Your task to perform on an android device: remove spam from my inbox in the gmail app Image 0: 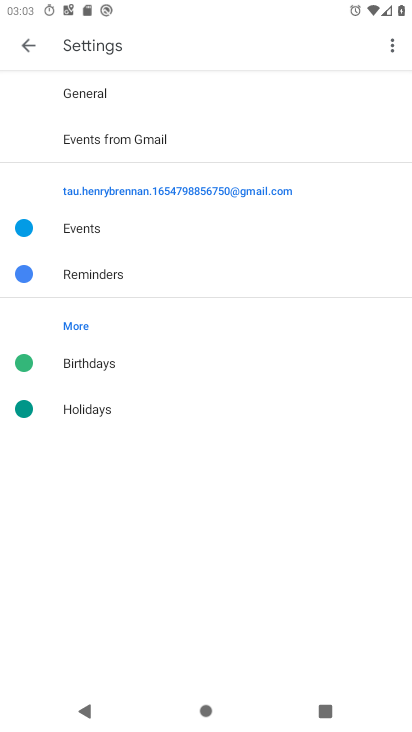
Step 0: drag from (179, 608) to (298, 99)
Your task to perform on an android device: remove spam from my inbox in the gmail app Image 1: 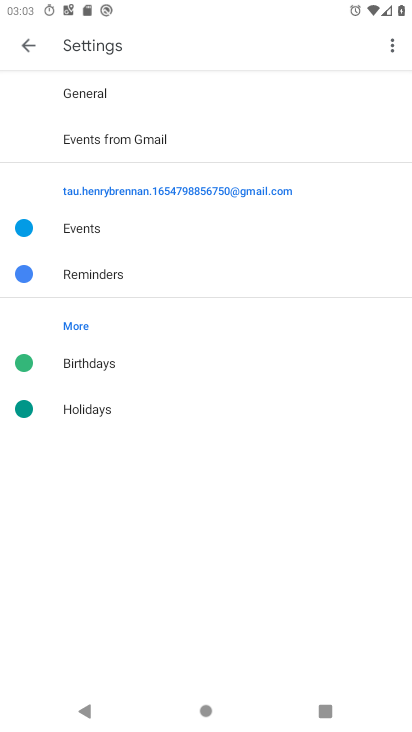
Step 1: press home button
Your task to perform on an android device: remove spam from my inbox in the gmail app Image 2: 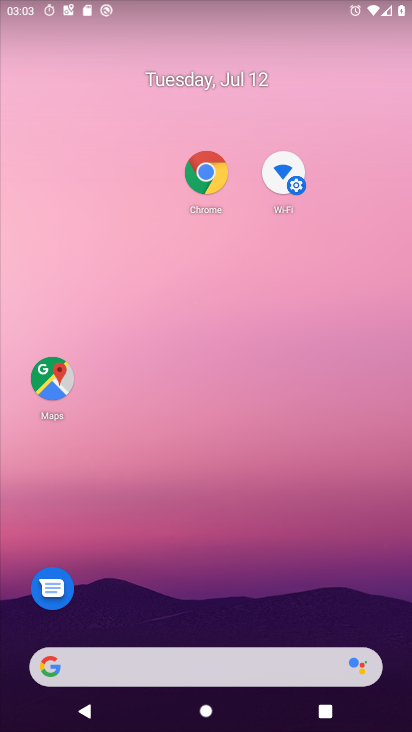
Step 2: drag from (195, 587) to (282, 24)
Your task to perform on an android device: remove spam from my inbox in the gmail app Image 3: 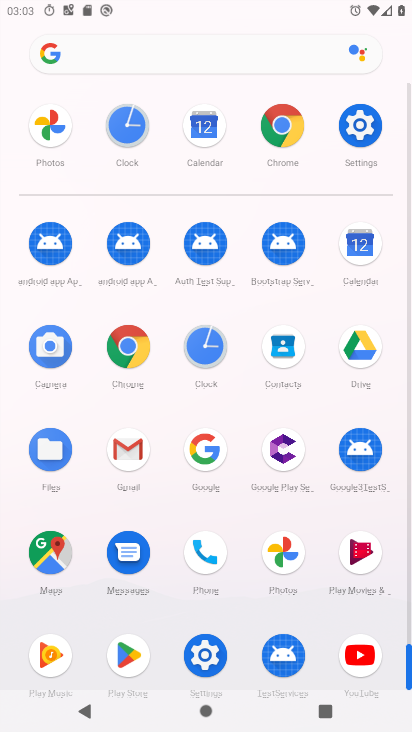
Step 3: click (118, 454)
Your task to perform on an android device: remove spam from my inbox in the gmail app Image 4: 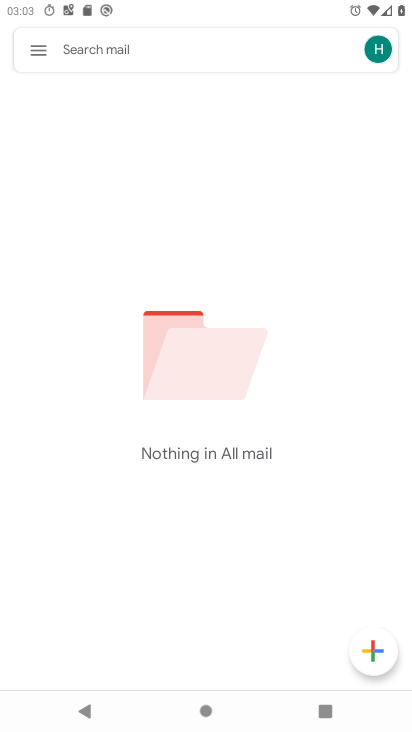
Step 4: drag from (153, 538) to (162, 355)
Your task to perform on an android device: remove spam from my inbox in the gmail app Image 5: 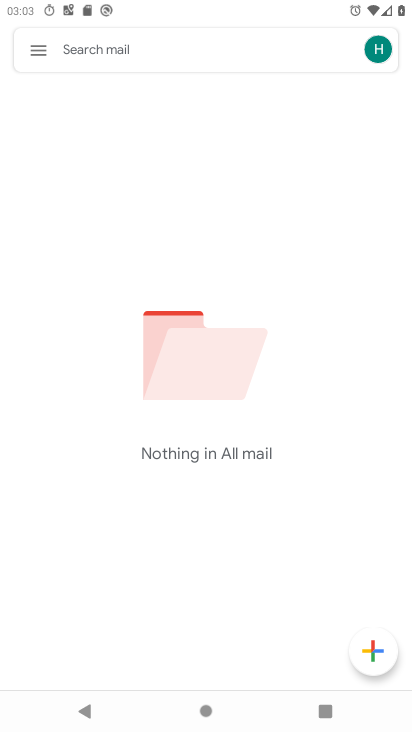
Step 5: click (28, 40)
Your task to perform on an android device: remove spam from my inbox in the gmail app Image 6: 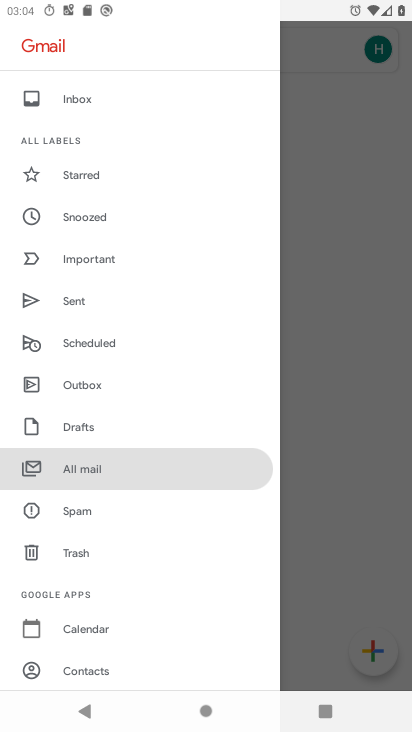
Step 6: click (82, 497)
Your task to perform on an android device: remove spam from my inbox in the gmail app Image 7: 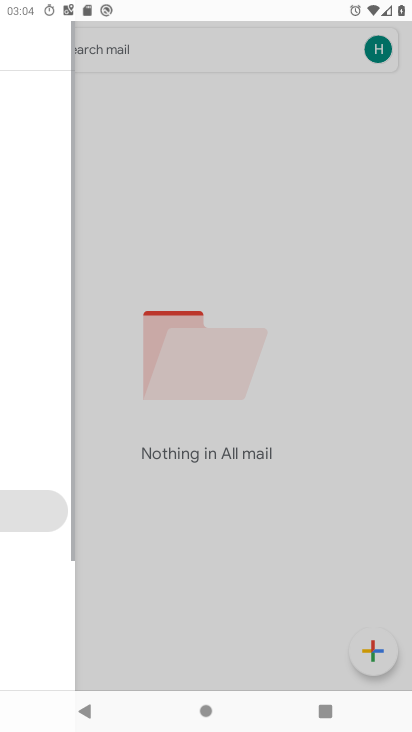
Step 7: click (66, 503)
Your task to perform on an android device: remove spam from my inbox in the gmail app Image 8: 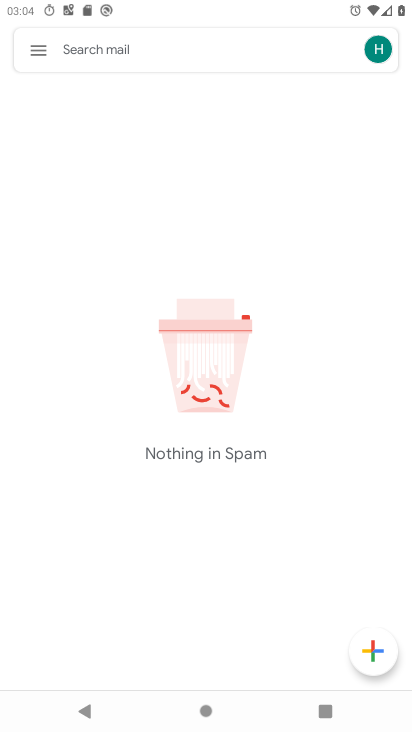
Step 8: drag from (178, 566) to (232, 254)
Your task to perform on an android device: remove spam from my inbox in the gmail app Image 9: 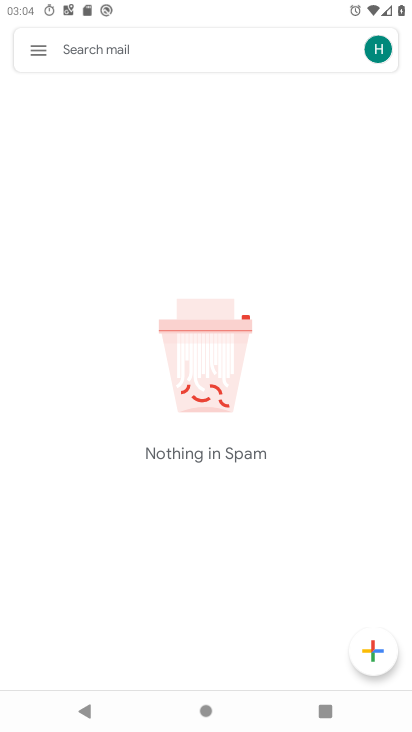
Step 9: drag from (242, 573) to (251, 357)
Your task to perform on an android device: remove spam from my inbox in the gmail app Image 10: 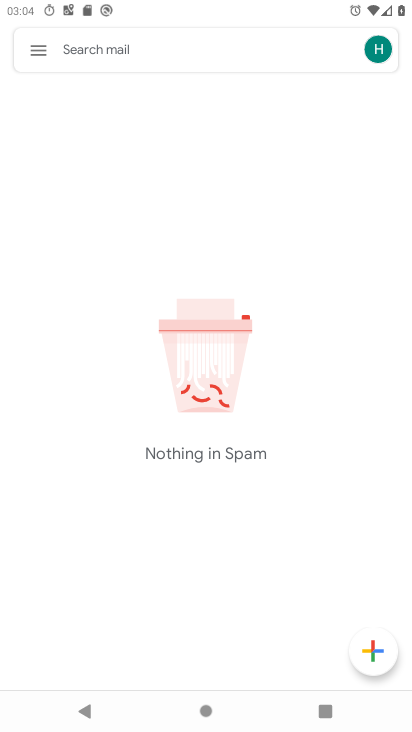
Step 10: click (44, 53)
Your task to perform on an android device: remove spam from my inbox in the gmail app Image 11: 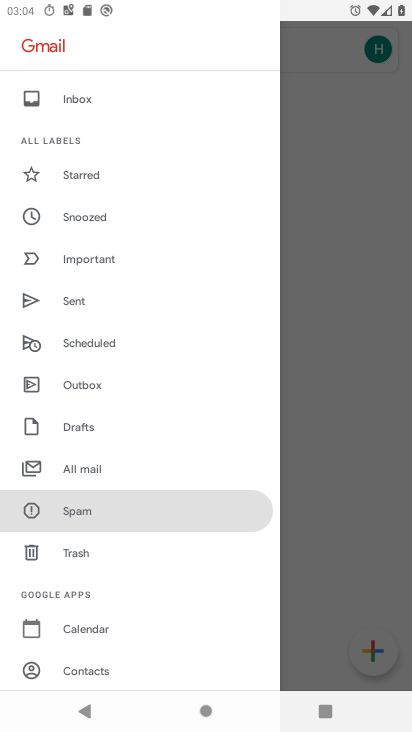
Step 11: click (104, 103)
Your task to perform on an android device: remove spam from my inbox in the gmail app Image 12: 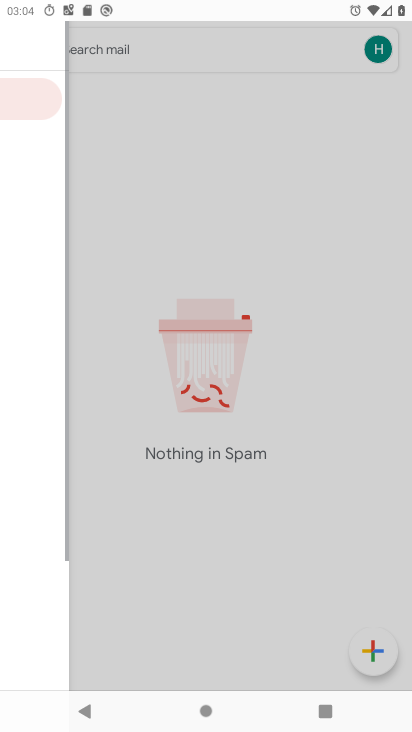
Step 12: click (387, 281)
Your task to perform on an android device: remove spam from my inbox in the gmail app Image 13: 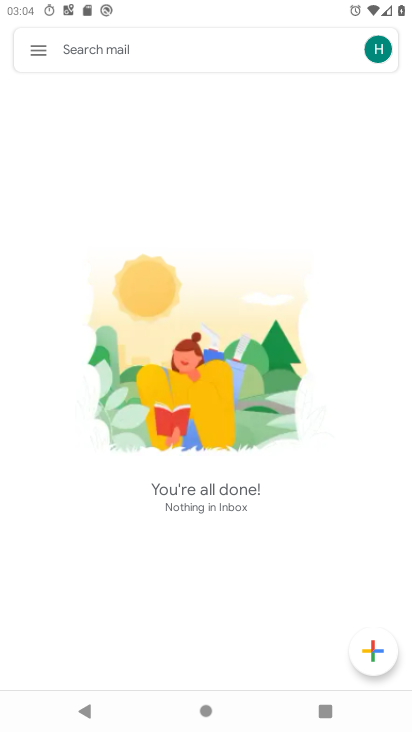
Step 13: click (309, 269)
Your task to perform on an android device: remove spam from my inbox in the gmail app Image 14: 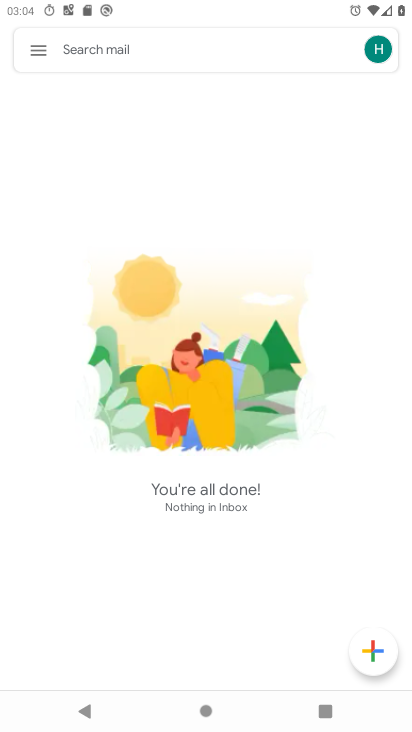
Step 14: task complete